Your task to perform on an android device: change the clock display to show seconds Image 0: 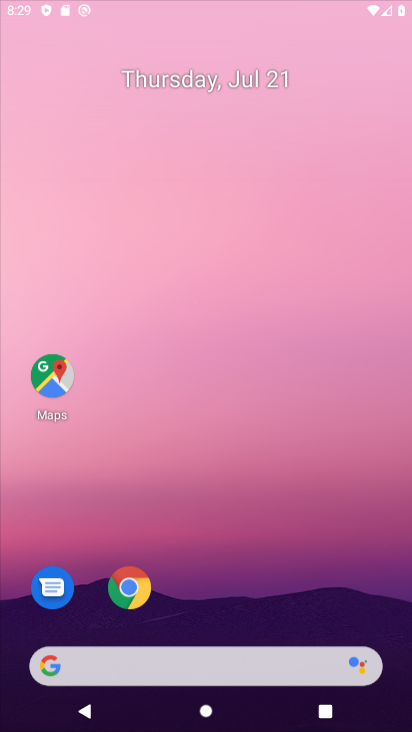
Step 0: click (195, 184)
Your task to perform on an android device: change the clock display to show seconds Image 1: 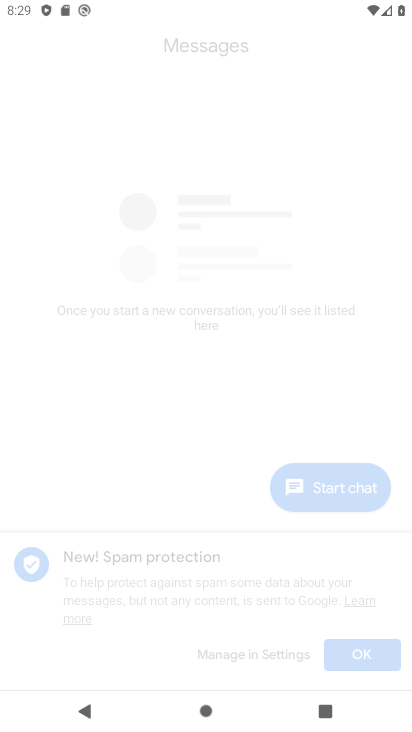
Step 1: drag from (236, 660) to (208, 179)
Your task to perform on an android device: change the clock display to show seconds Image 2: 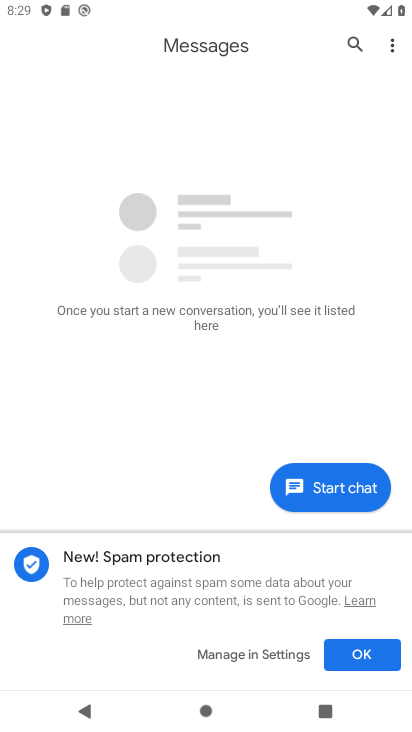
Step 2: press back button
Your task to perform on an android device: change the clock display to show seconds Image 3: 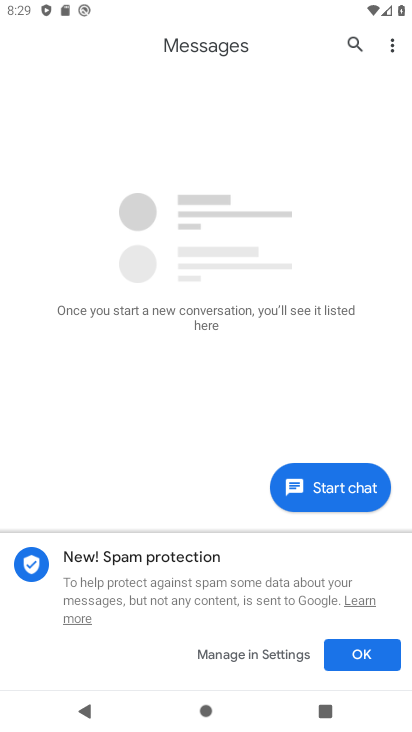
Step 3: press back button
Your task to perform on an android device: change the clock display to show seconds Image 4: 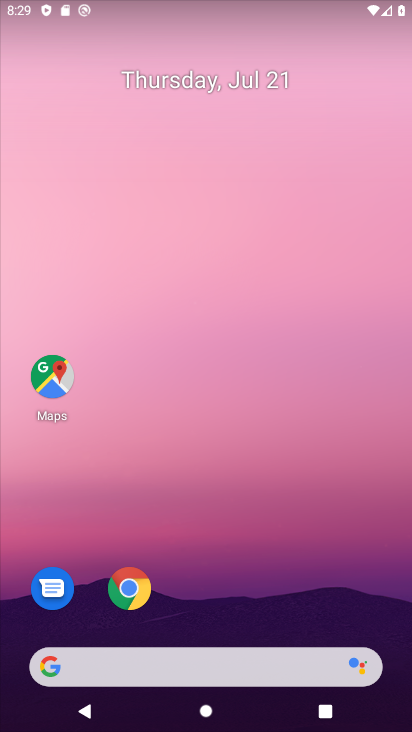
Step 4: drag from (263, 578) to (256, 246)
Your task to perform on an android device: change the clock display to show seconds Image 5: 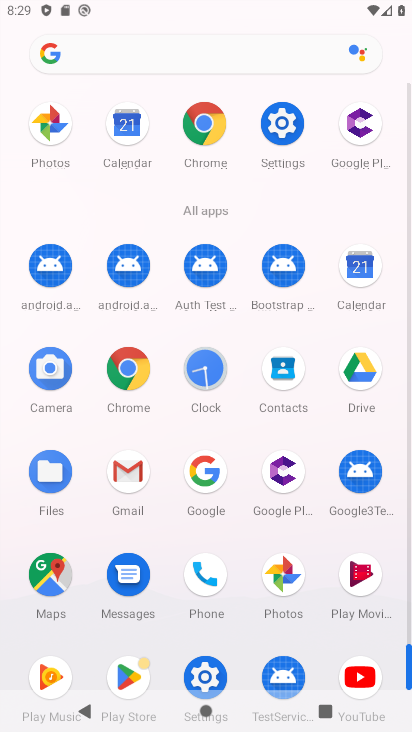
Step 5: click (208, 379)
Your task to perform on an android device: change the clock display to show seconds Image 6: 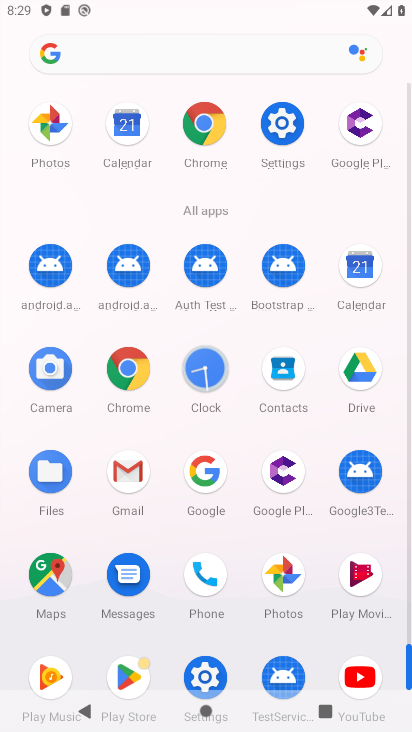
Step 6: click (209, 376)
Your task to perform on an android device: change the clock display to show seconds Image 7: 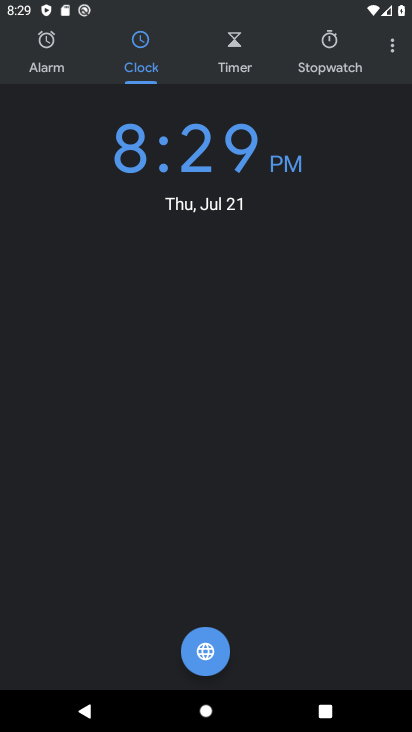
Step 7: click (384, 47)
Your task to perform on an android device: change the clock display to show seconds Image 8: 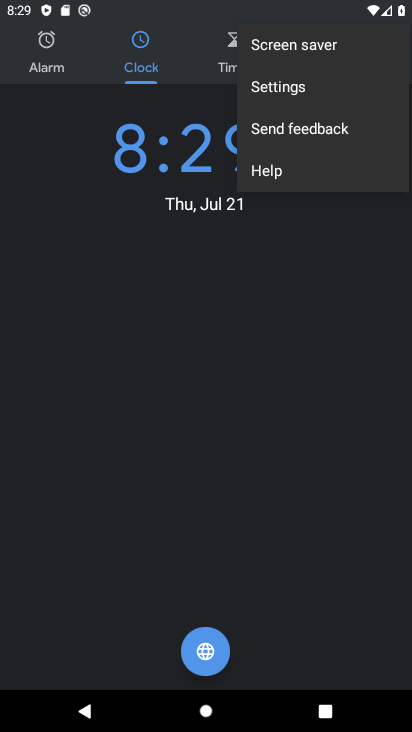
Step 8: click (278, 88)
Your task to perform on an android device: change the clock display to show seconds Image 9: 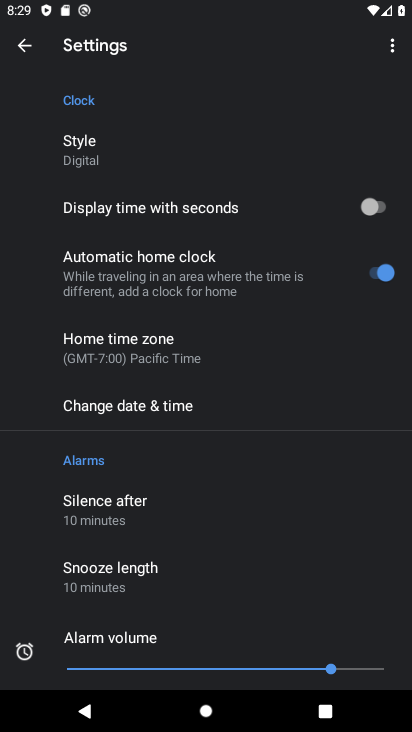
Step 9: click (373, 203)
Your task to perform on an android device: change the clock display to show seconds Image 10: 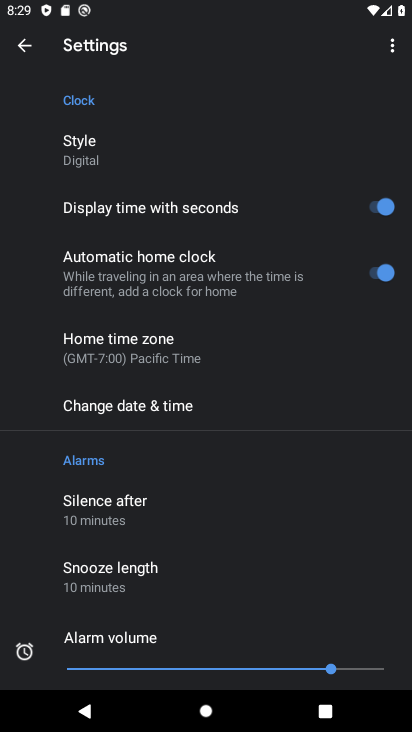
Step 10: task complete